Your task to perform on an android device: Open Google Image 0: 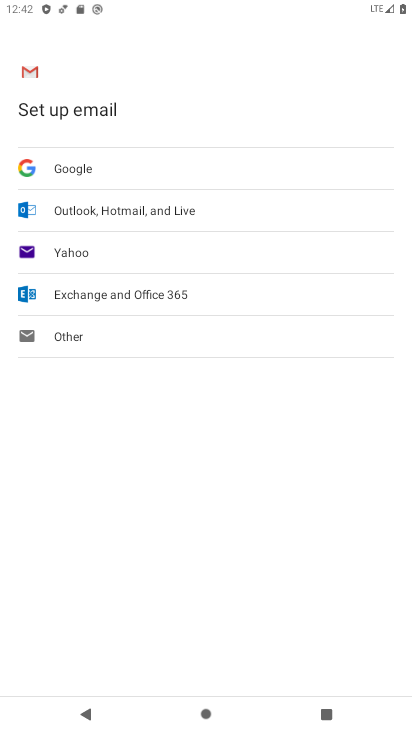
Step 0: press home button
Your task to perform on an android device: Open Google Image 1: 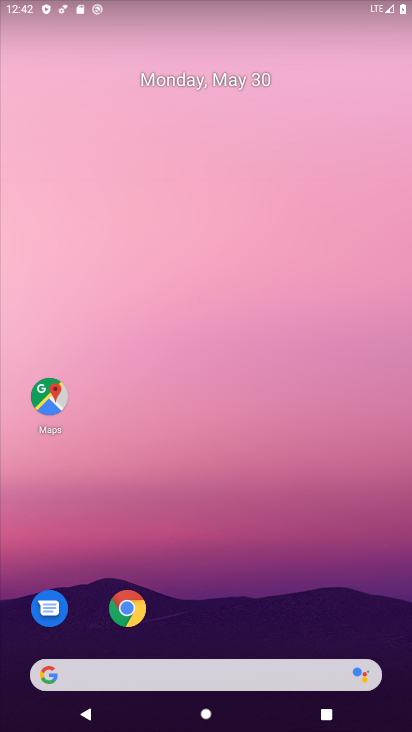
Step 1: click (187, 674)
Your task to perform on an android device: Open Google Image 2: 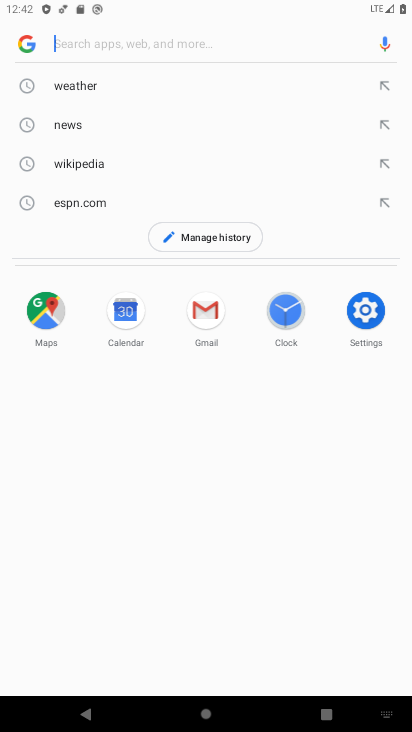
Step 2: click (35, 41)
Your task to perform on an android device: Open Google Image 3: 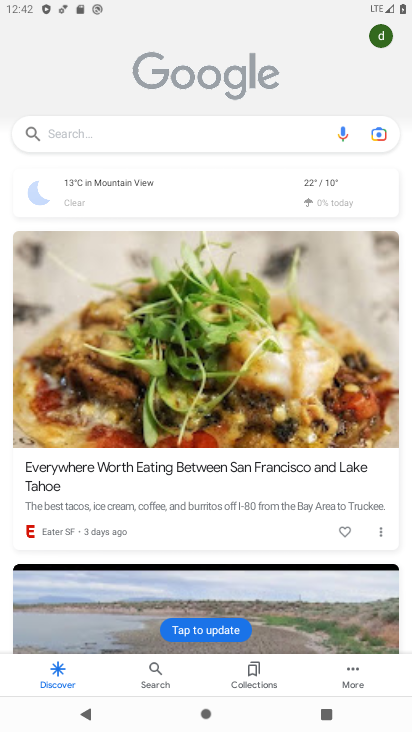
Step 3: task complete